Your task to perform on an android device: Turn off the flashlight Image 0: 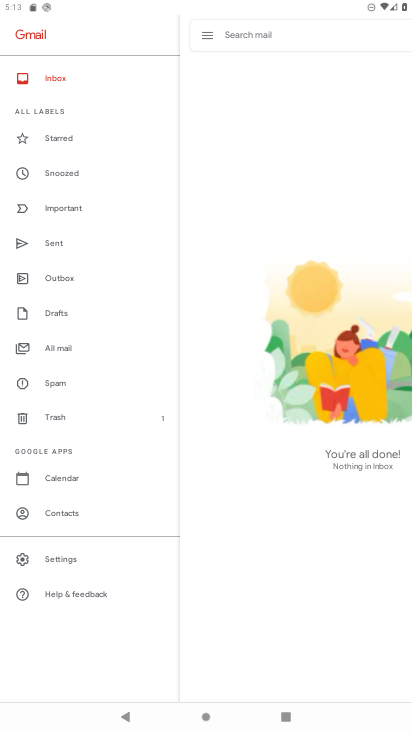
Step 0: press home button
Your task to perform on an android device: Turn off the flashlight Image 1: 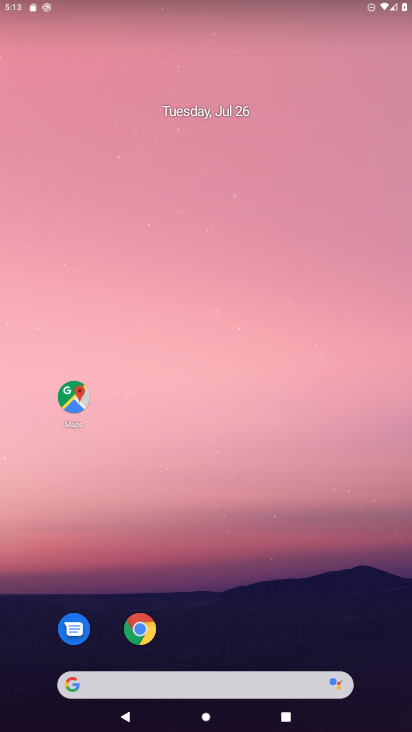
Step 1: task complete